Your task to perform on an android device: Go to notification settings Image 0: 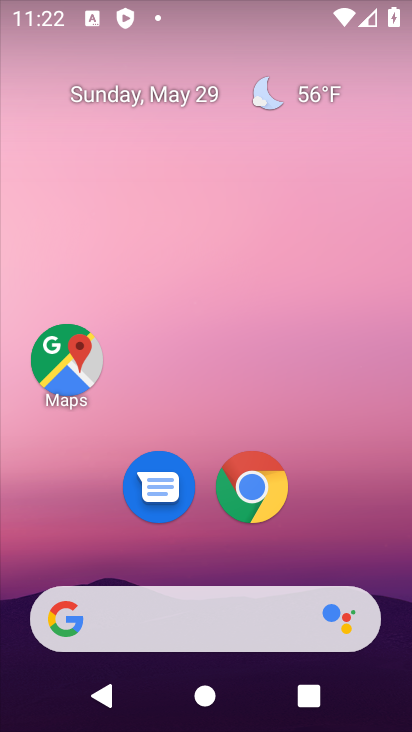
Step 0: drag from (261, 578) to (275, 165)
Your task to perform on an android device: Go to notification settings Image 1: 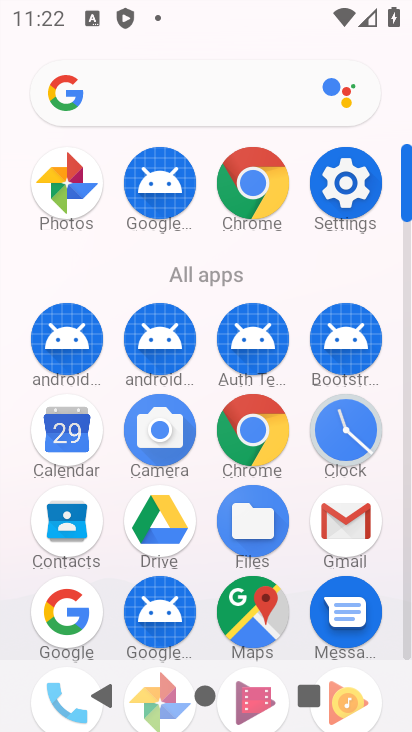
Step 1: click (353, 207)
Your task to perform on an android device: Go to notification settings Image 2: 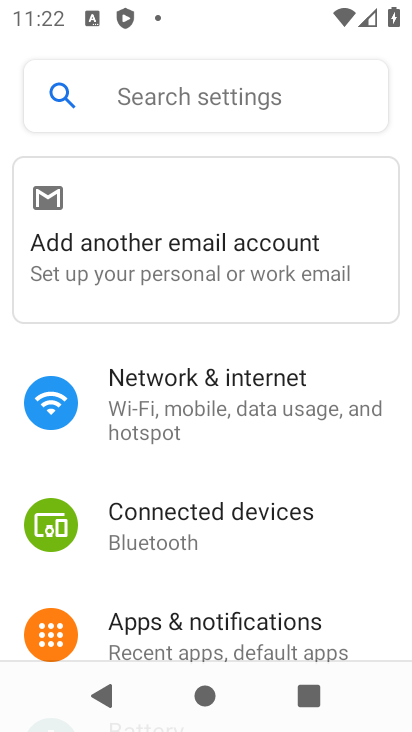
Step 2: drag from (248, 569) to (233, 351)
Your task to perform on an android device: Go to notification settings Image 3: 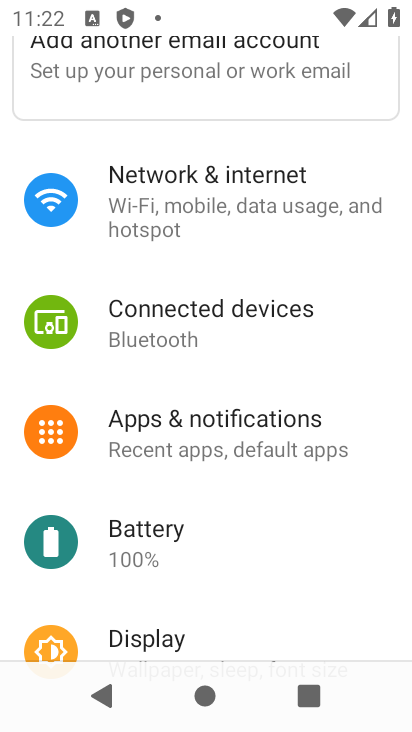
Step 3: click (239, 426)
Your task to perform on an android device: Go to notification settings Image 4: 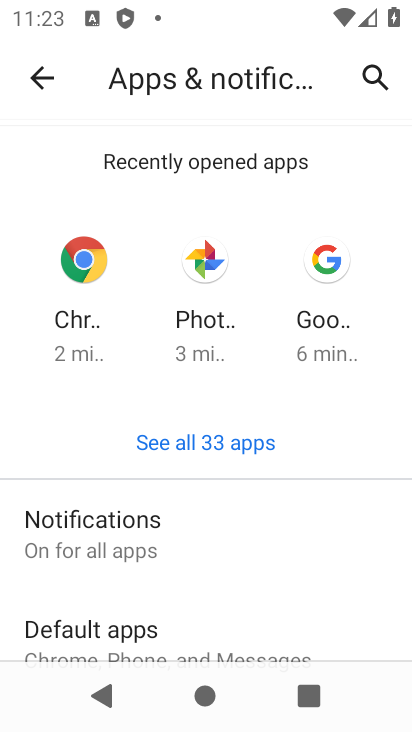
Step 4: click (233, 529)
Your task to perform on an android device: Go to notification settings Image 5: 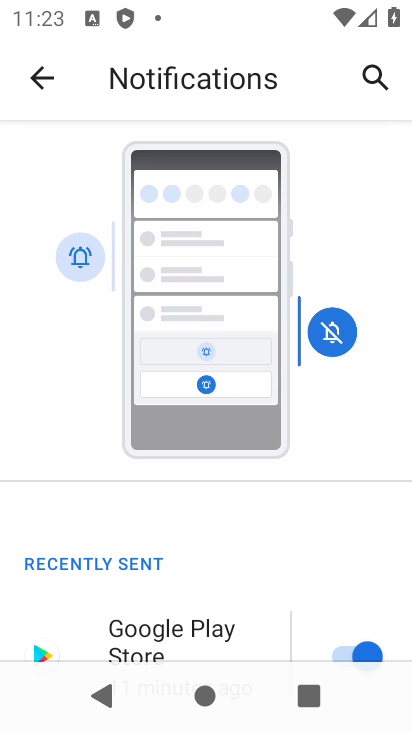
Step 5: task complete